Your task to perform on an android device: turn on the 24-hour format for clock Image 0: 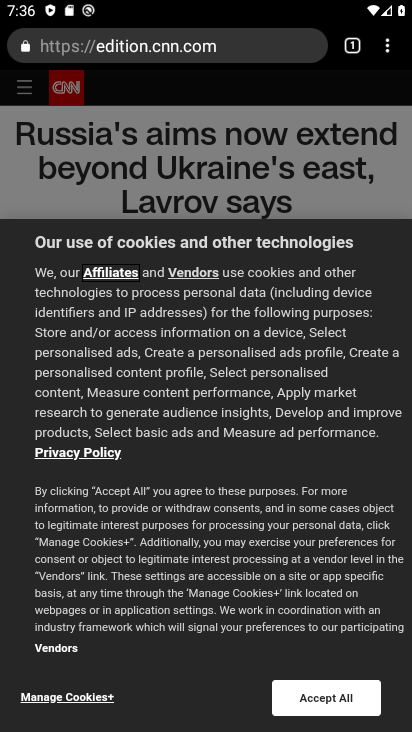
Step 0: press home button
Your task to perform on an android device: turn on the 24-hour format for clock Image 1: 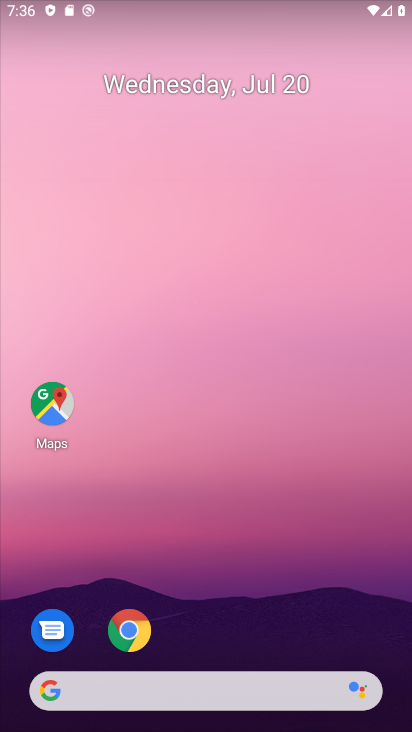
Step 1: drag from (225, 663) to (209, 81)
Your task to perform on an android device: turn on the 24-hour format for clock Image 2: 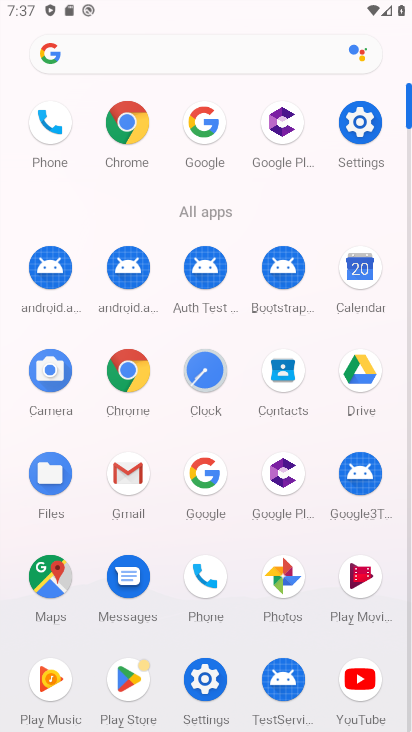
Step 2: click (201, 381)
Your task to perform on an android device: turn on the 24-hour format for clock Image 3: 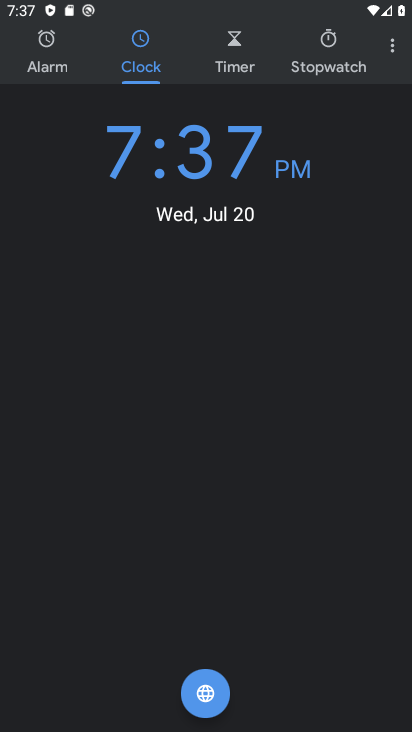
Step 3: click (391, 52)
Your task to perform on an android device: turn on the 24-hour format for clock Image 4: 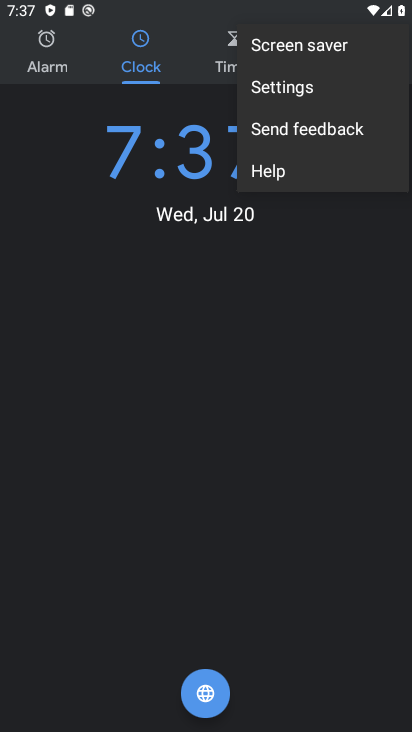
Step 4: click (290, 95)
Your task to perform on an android device: turn on the 24-hour format for clock Image 5: 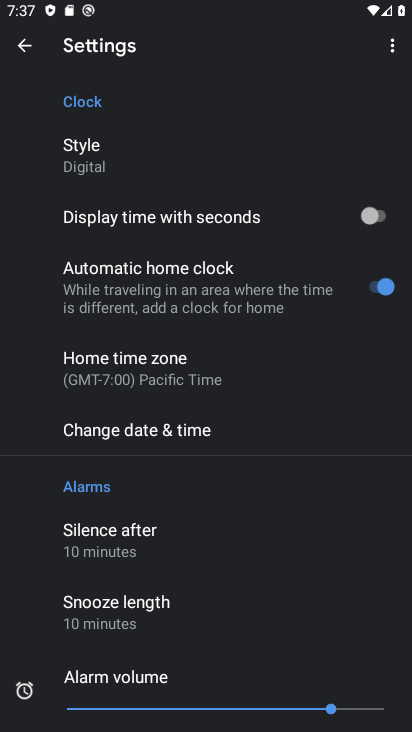
Step 5: click (183, 425)
Your task to perform on an android device: turn on the 24-hour format for clock Image 6: 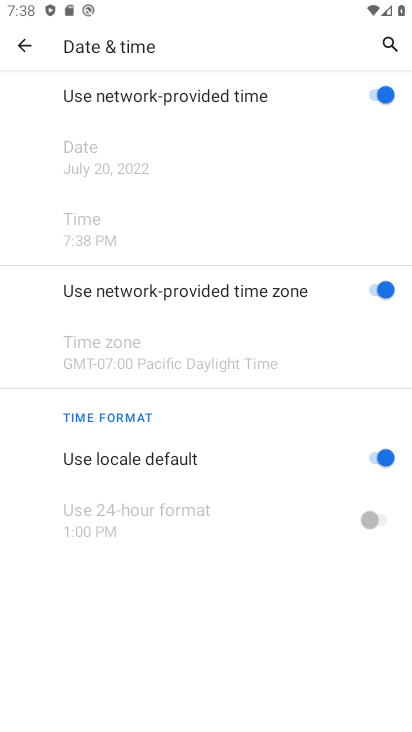
Step 6: task complete